Your task to perform on an android device: turn off improve location accuracy Image 0: 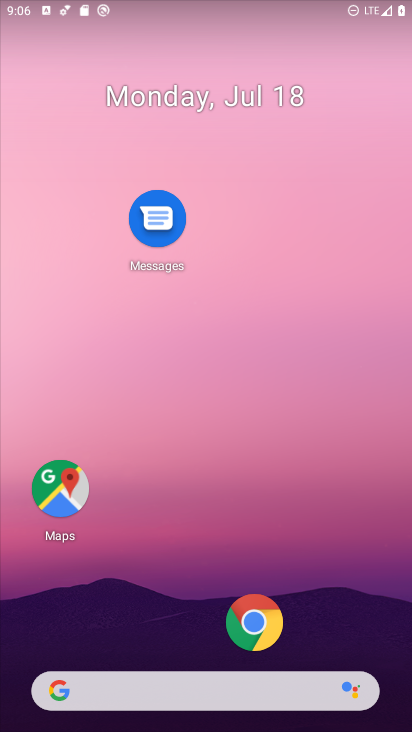
Step 0: press home button
Your task to perform on an android device: turn off improve location accuracy Image 1: 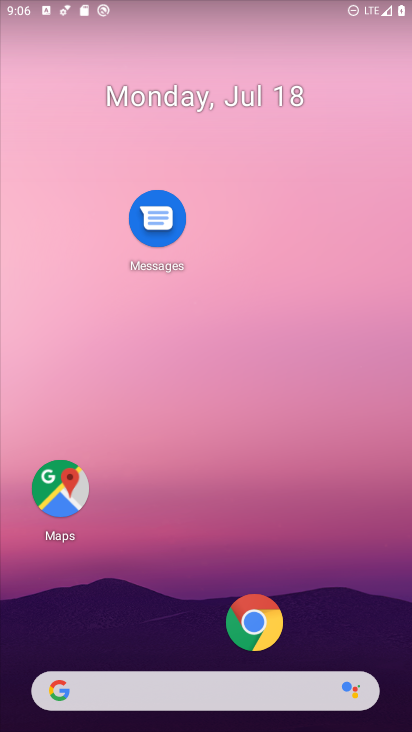
Step 1: drag from (214, 691) to (293, 111)
Your task to perform on an android device: turn off improve location accuracy Image 2: 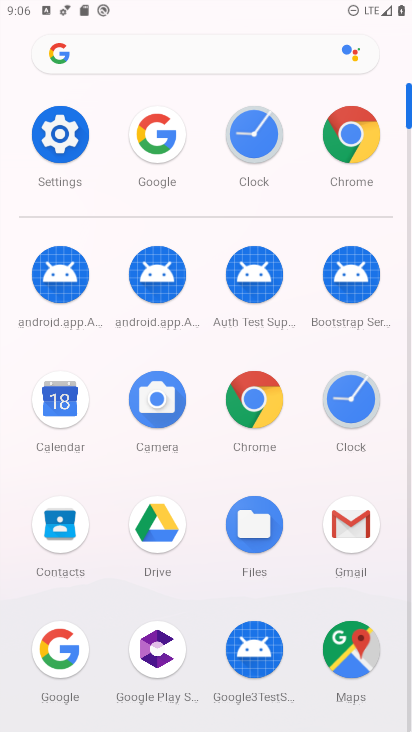
Step 2: drag from (208, 541) to (289, 178)
Your task to perform on an android device: turn off improve location accuracy Image 3: 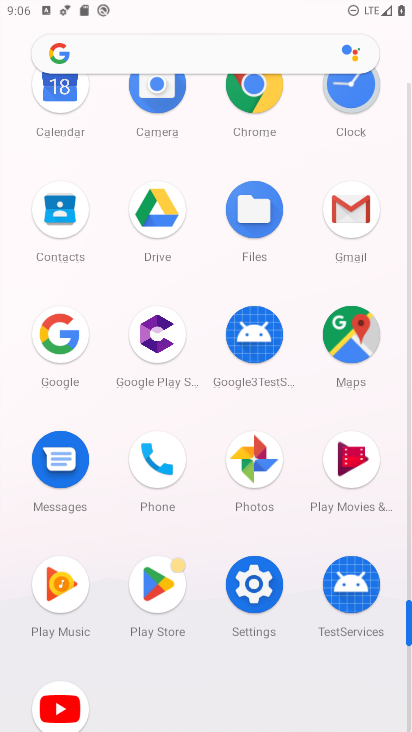
Step 3: click (247, 602)
Your task to perform on an android device: turn off improve location accuracy Image 4: 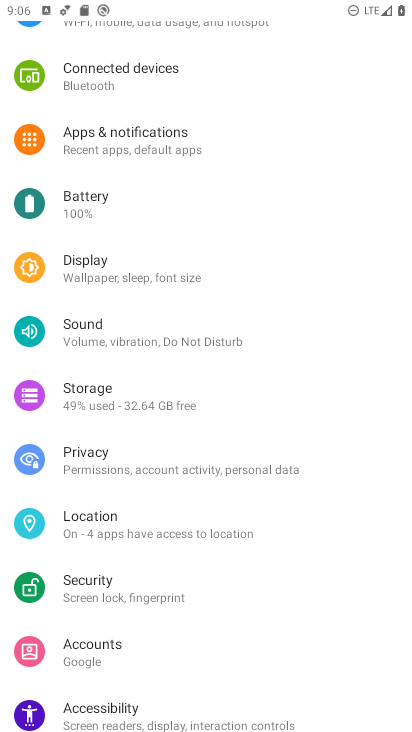
Step 4: click (135, 533)
Your task to perform on an android device: turn off improve location accuracy Image 5: 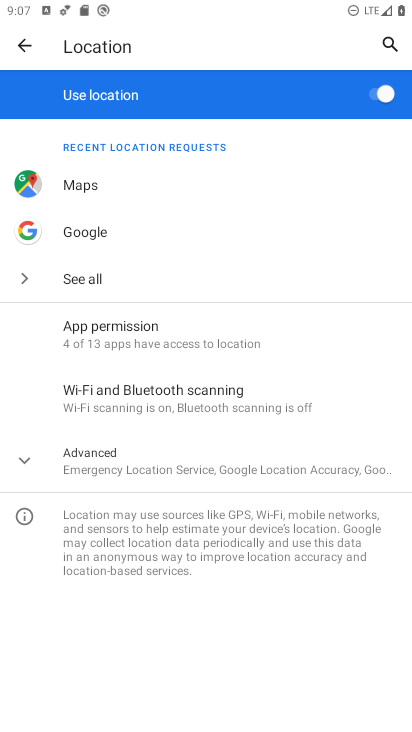
Step 5: click (150, 470)
Your task to perform on an android device: turn off improve location accuracy Image 6: 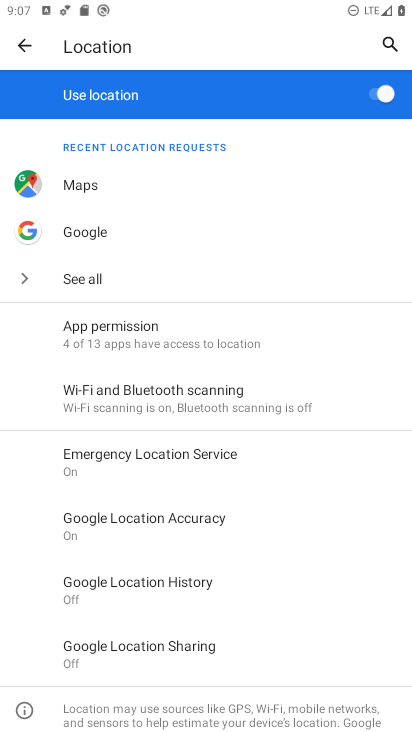
Step 6: click (172, 528)
Your task to perform on an android device: turn off improve location accuracy Image 7: 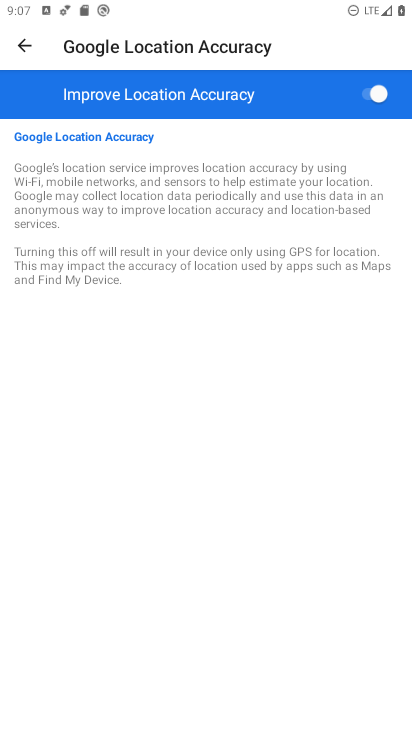
Step 7: click (339, 106)
Your task to perform on an android device: turn off improve location accuracy Image 8: 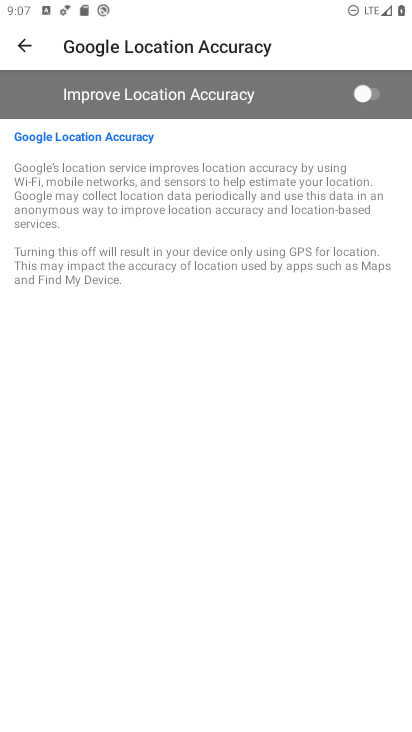
Step 8: task complete